Your task to perform on an android device: turn off priority inbox in the gmail app Image 0: 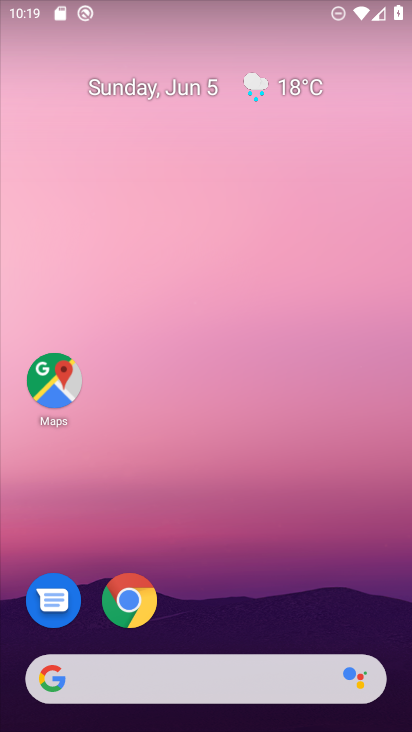
Step 0: drag from (233, 612) to (324, 17)
Your task to perform on an android device: turn off priority inbox in the gmail app Image 1: 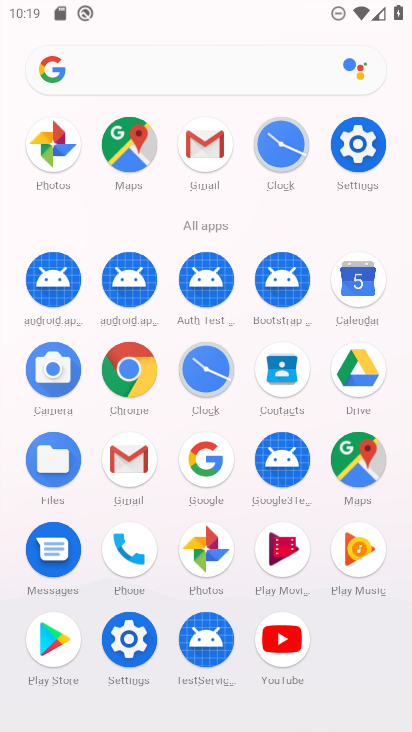
Step 1: click (238, 148)
Your task to perform on an android device: turn off priority inbox in the gmail app Image 2: 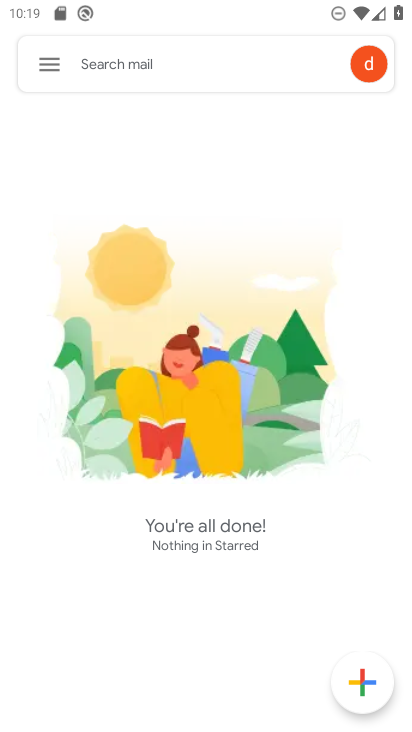
Step 2: click (42, 65)
Your task to perform on an android device: turn off priority inbox in the gmail app Image 3: 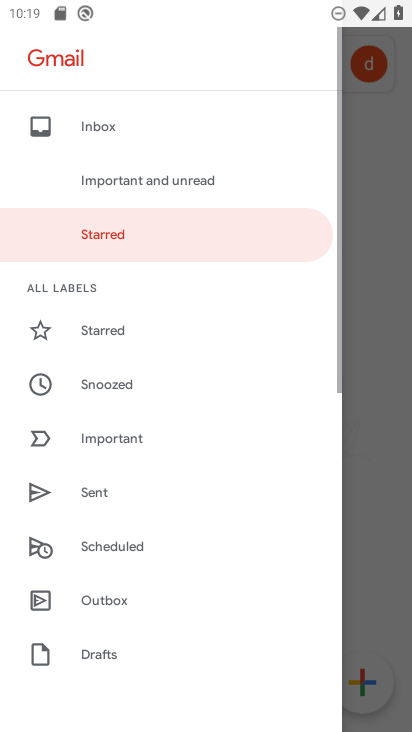
Step 3: drag from (187, 651) to (234, 62)
Your task to perform on an android device: turn off priority inbox in the gmail app Image 4: 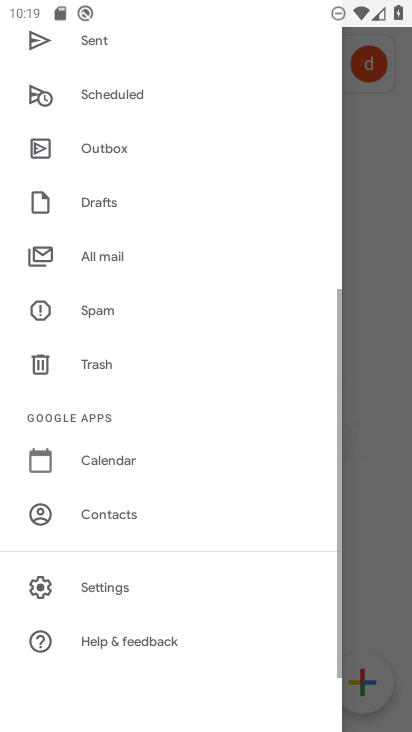
Step 4: click (115, 587)
Your task to perform on an android device: turn off priority inbox in the gmail app Image 5: 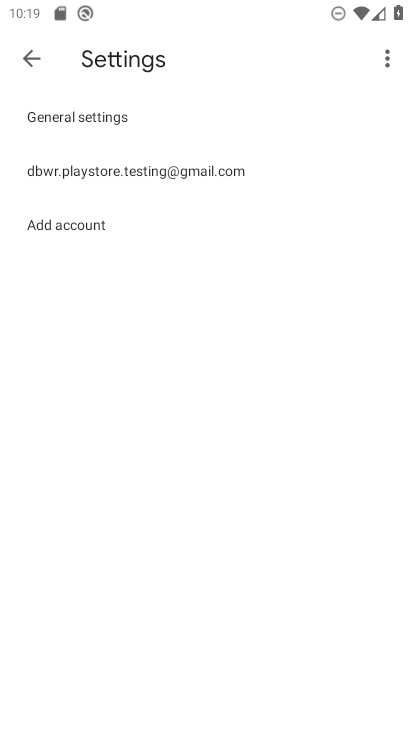
Step 5: click (135, 163)
Your task to perform on an android device: turn off priority inbox in the gmail app Image 6: 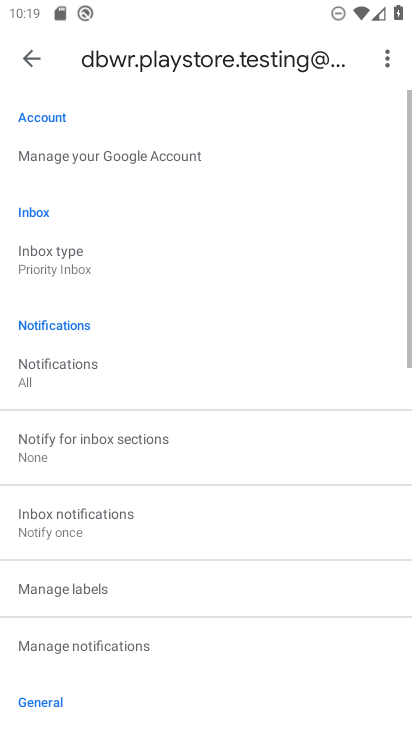
Step 6: click (91, 245)
Your task to perform on an android device: turn off priority inbox in the gmail app Image 7: 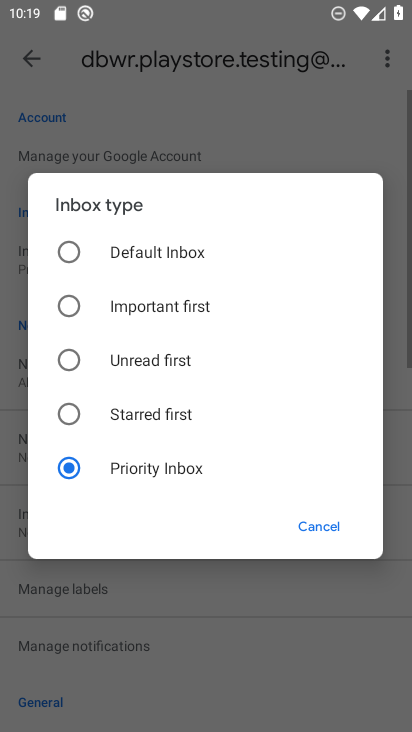
Step 7: click (87, 239)
Your task to perform on an android device: turn off priority inbox in the gmail app Image 8: 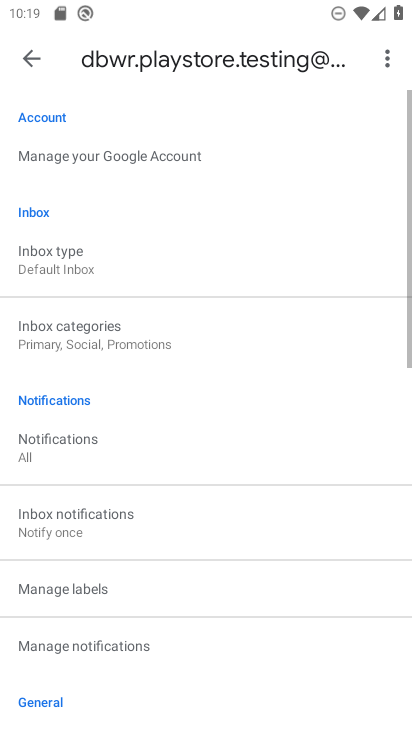
Step 8: task complete